Your task to perform on an android device: move an email to a new category in the gmail app Image 0: 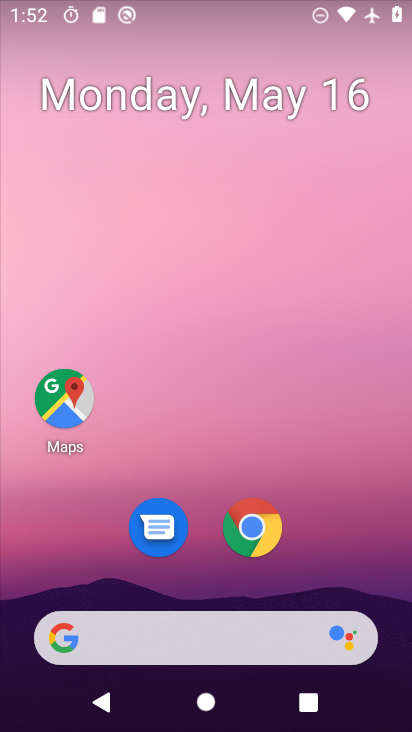
Step 0: press home button
Your task to perform on an android device: move an email to a new category in the gmail app Image 1: 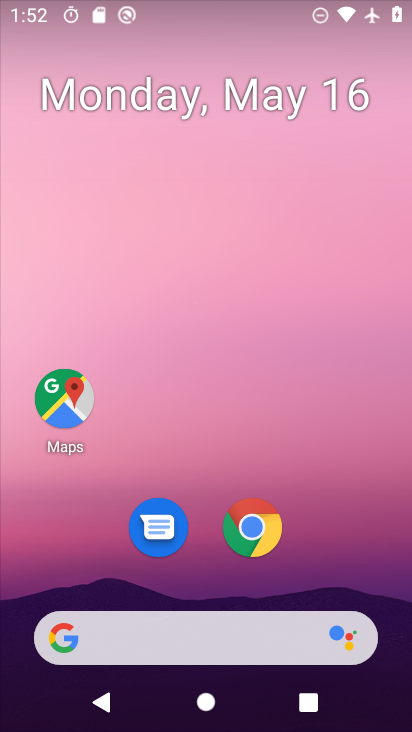
Step 1: drag from (146, 623) to (253, 255)
Your task to perform on an android device: move an email to a new category in the gmail app Image 2: 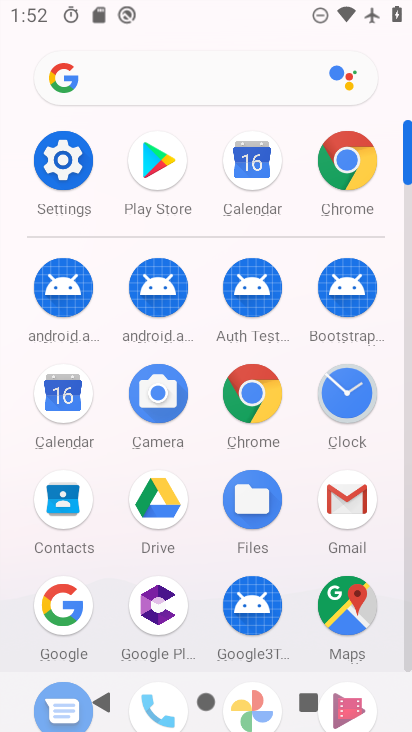
Step 2: click (341, 514)
Your task to perform on an android device: move an email to a new category in the gmail app Image 3: 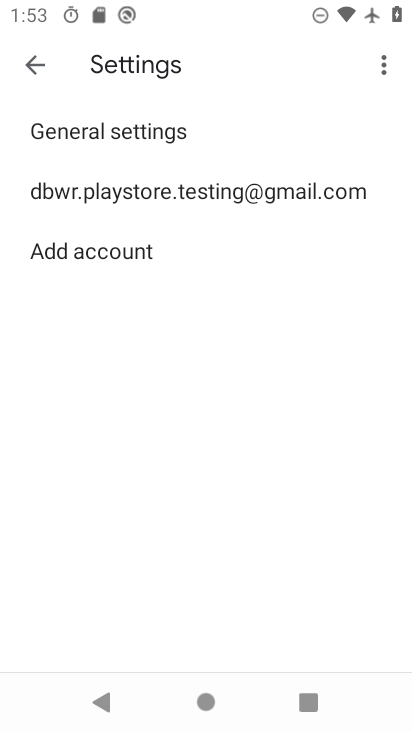
Step 3: click (35, 58)
Your task to perform on an android device: move an email to a new category in the gmail app Image 4: 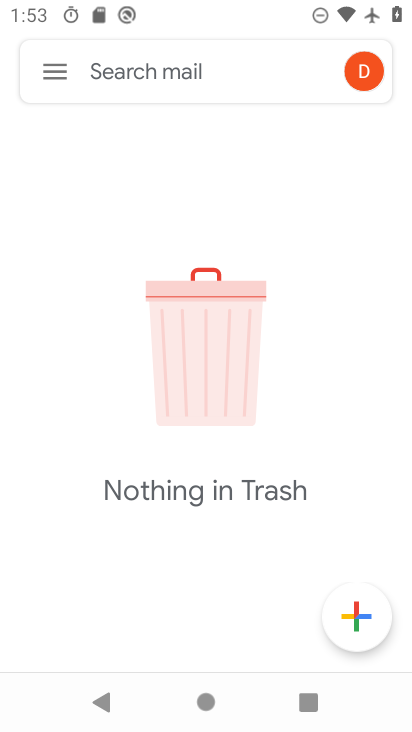
Step 4: click (50, 70)
Your task to perform on an android device: move an email to a new category in the gmail app Image 5: 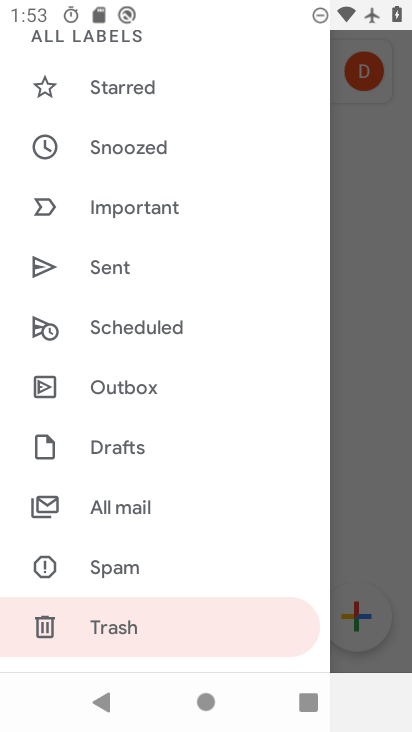
Step 5: click (143, 506)
Your task to perform on an android device: move an email to a new category in the gmail app Image 6: 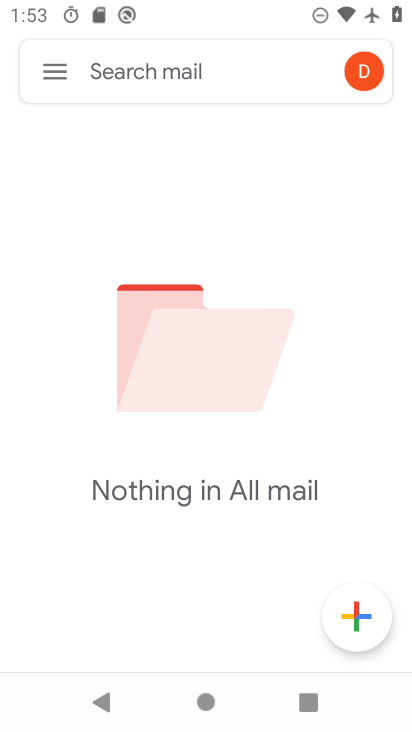
Step 6: task complete